Your task to perform on an android device: see creations saved in the google photos Image 0: 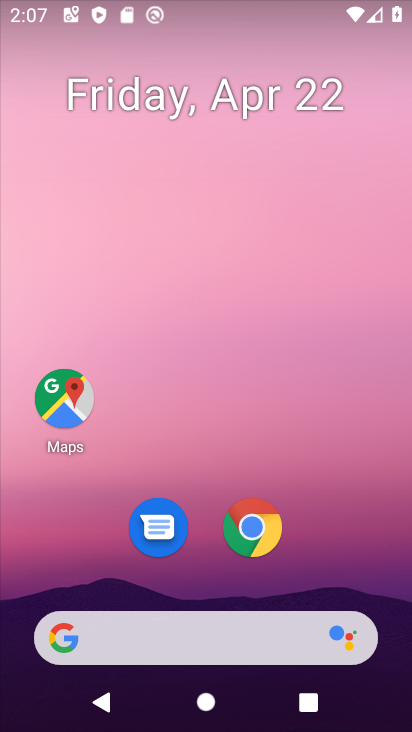
Step 0: drag from (328, 555) to (350, 80)
Your task to perform on an android device: see creations saved in the google photos Image 1: 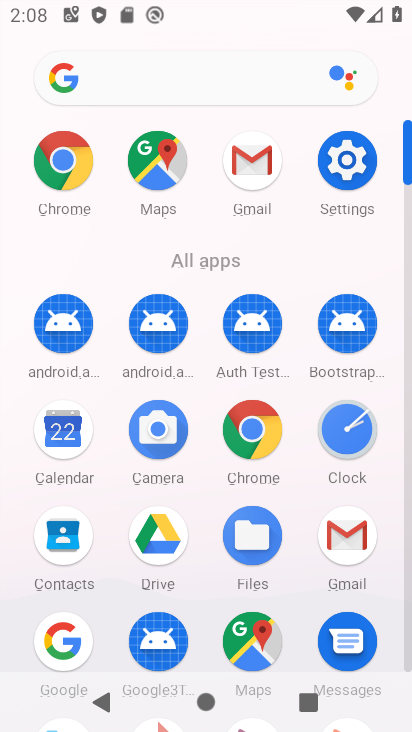
Step 1: drag from (298, 345) to (312, 20)
Your task to perform on an android device: see creations saved in the google photos Image 2: 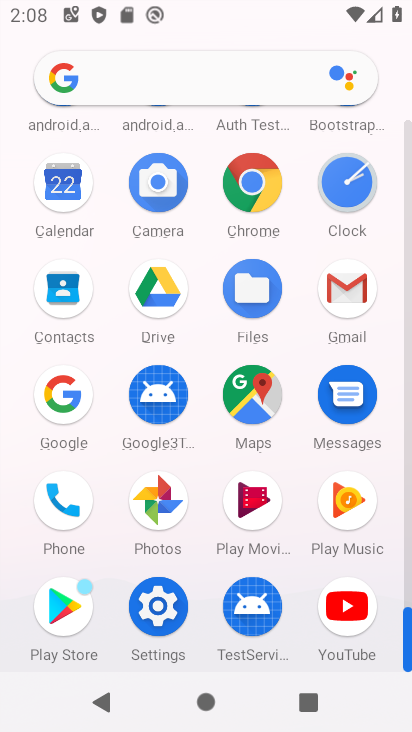
Step 2: click (162, 507)
Your task to perform on an android device: see creations saved in the google photos Image 3: 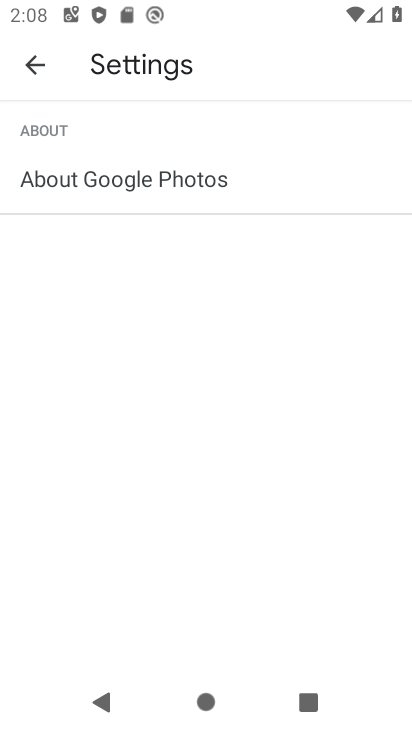
Step 3: click (31, 64)
Your task to perform on an android device: see creations saved in the google photos Image 4: 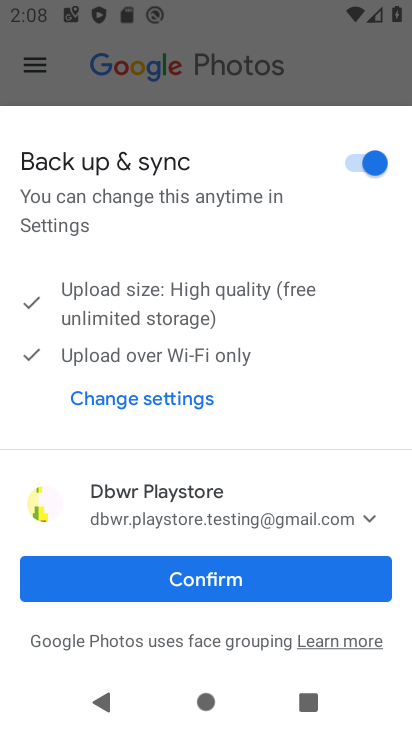
Step 4: click (245, 579)
Your task to perform on an android device: see creations saved in the google photos Image 5: 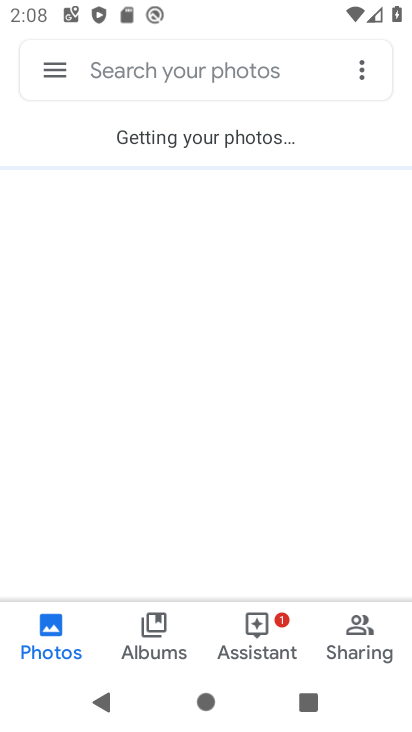
Step 5: click (57, 72)
Your task to perform on an android device: see creations saved in the google photos Image 6: 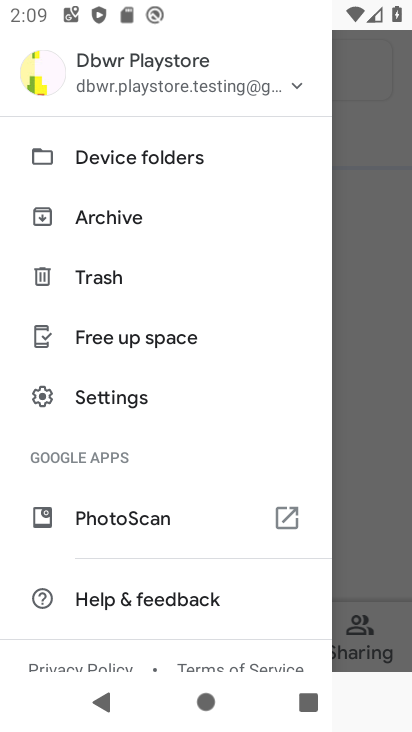
Step 6: drag from (368, 378) to (197, 123)
Your task to perform on an android device: see creations saved in the google photos Image 7: 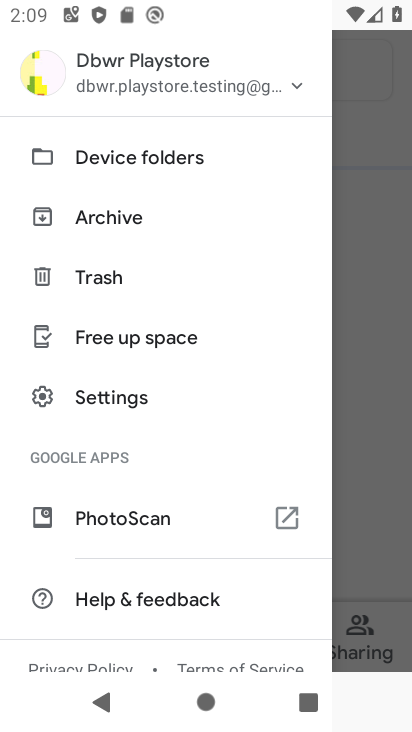
Step 7: click (352, 272)
Your task to perform on an android device: see creations saved in the google photos Image 8: 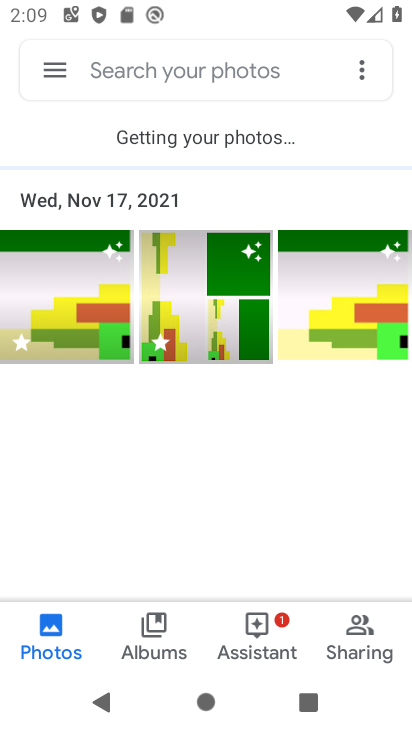
Step 8: click (153, 61)
Your task to perform on an android device: see creations saved in the google photos Image 9: 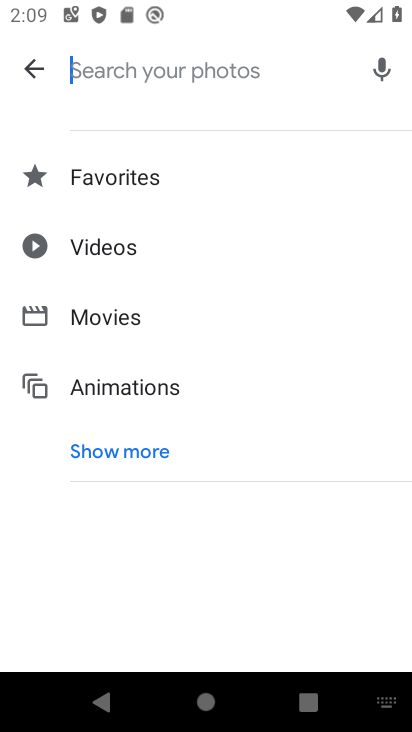
Step 9: click (142, 444)
Your task to perform on an android device: see creations saved in the google photos Image 10: 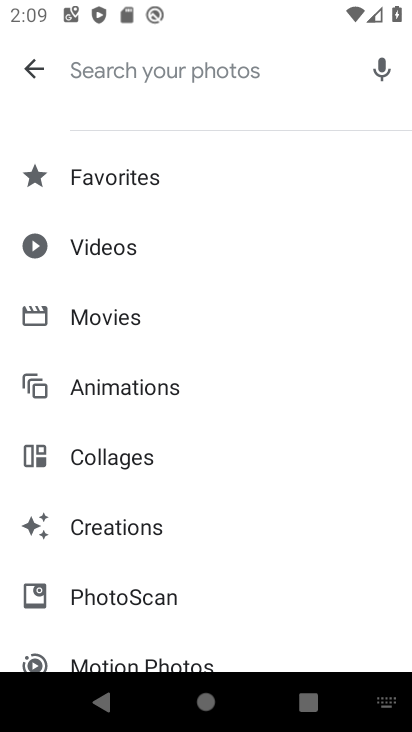
Step 10: click (115, 527)
Your task to perform on an android device: see creations saved in the google photos Image 11: 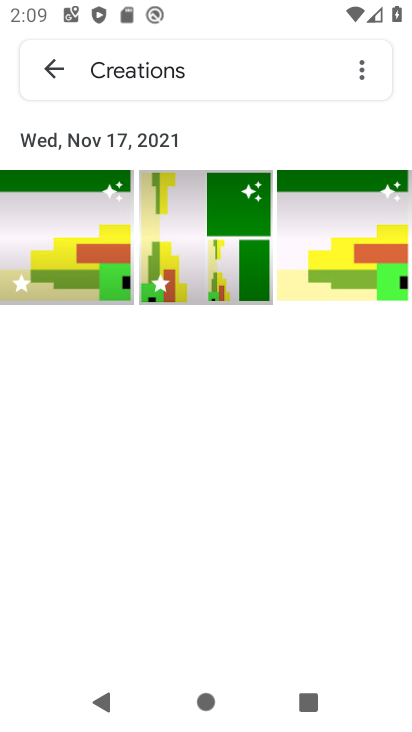
Step 11: task complete